Your task to perform on an android device: turn pop-ups on in chrome Image 0: 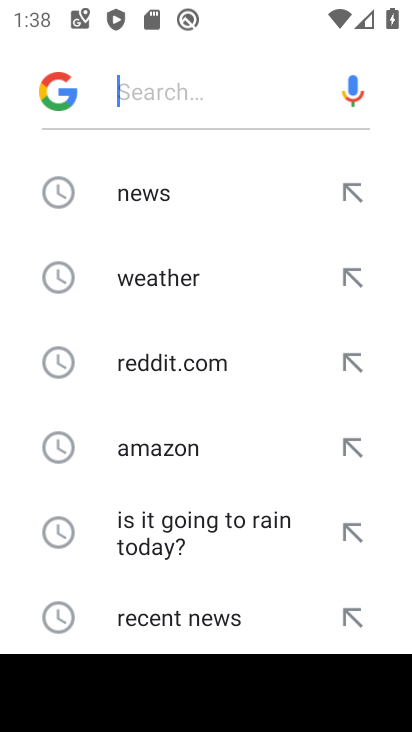
Step 0: press home button
Your task to perform on an android device: turn pop-ups on in chrome Image 1: 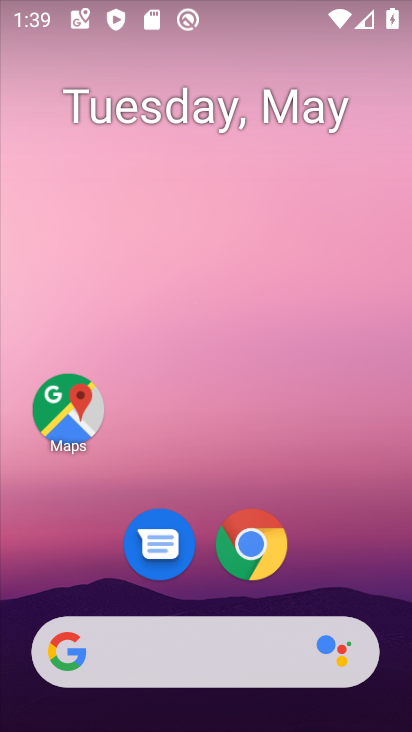
Step 1: click (260, 542)
Your task to perform on an android device: turn pop-ups on in chrome Image 2: 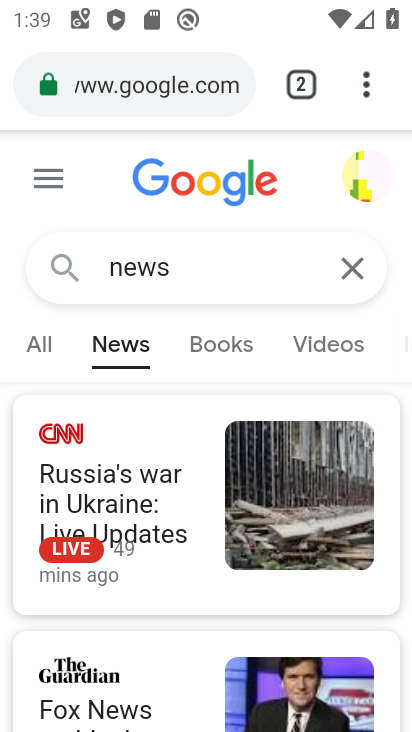
Step 2: drag from (367, 79) to (147, 602)
Your task to perform on an android device: turn pop-ups on in chrome Image 3: 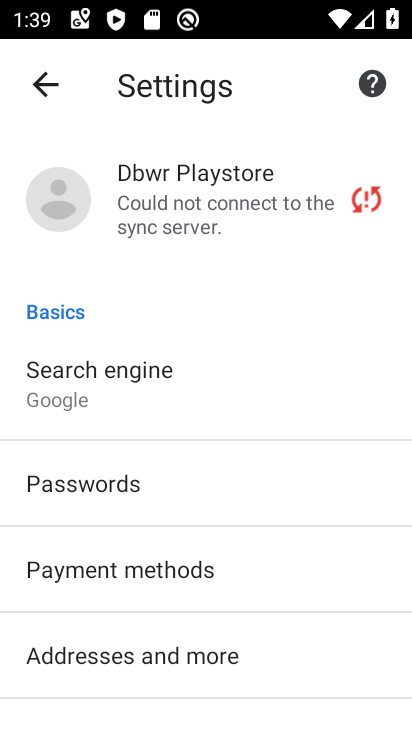
Step 3: drag from (129, 644) to (127, 239)
Your task to perform on an android device: turn pop-ups on in chrome Image 4: 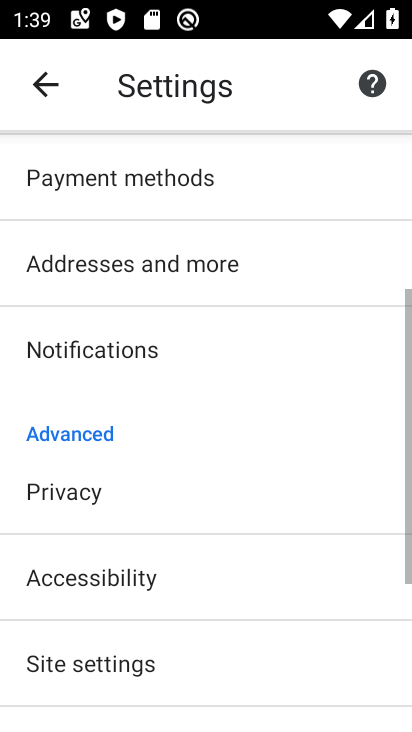
Step 4: drag from (122, 598) to (207, 327)
Your task to perform on an android device: turn pop-ups on in chrome Image 5: 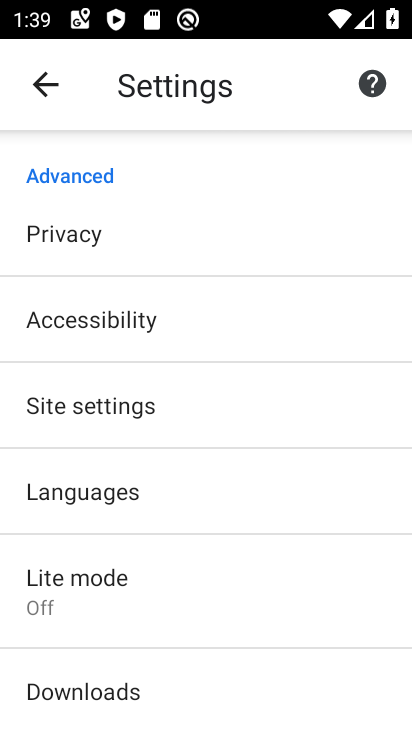
Step 5: click (105, 414)
Your task to perform on an android device: turn pop-ups on in chrome Image 6: 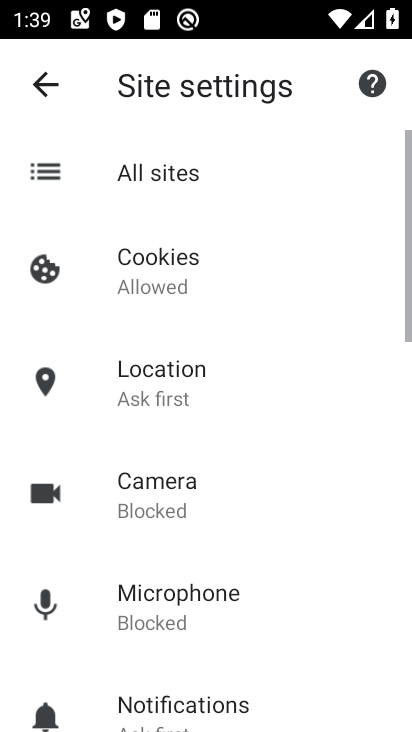
Step 6: drag from (243, 622) to (276, 196)
Your task to perform on an android device: turn pop-ups on in chrome Image 7: 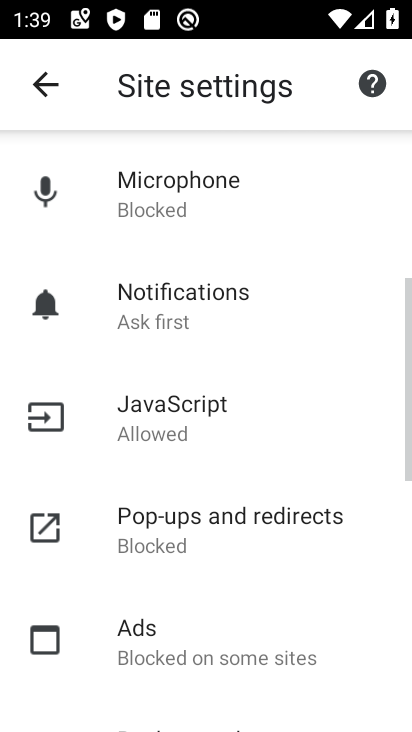
Step 7: click (220, 540)
Your task to perform on an android device: turn pop-ups on in chrome Image 8: 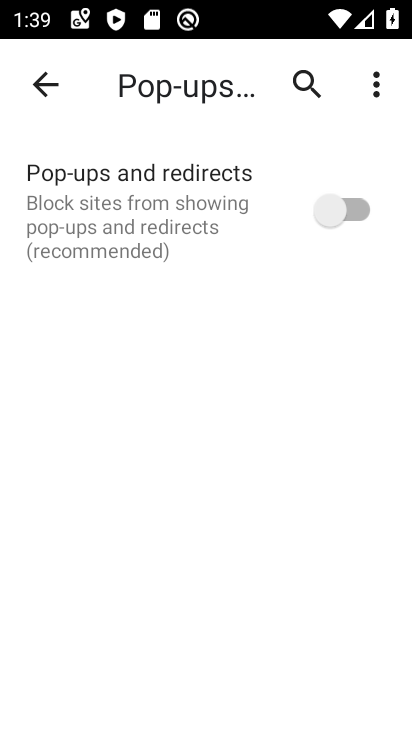
Step 8: click (360, 206)
Your task to perform on an android device: turn pop-ups on in chrome Image 9: 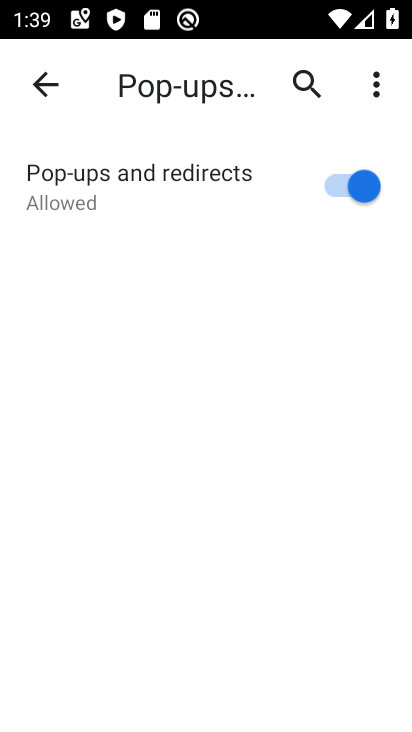
Step 9: task complete